Your task to perform on an android device: set the timer Image 0: 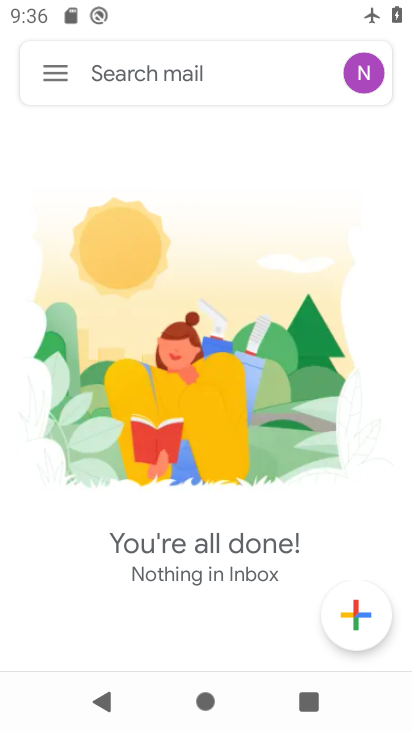
Step 0: press home button
Your task to perform on an android device: set the timer Image 1: 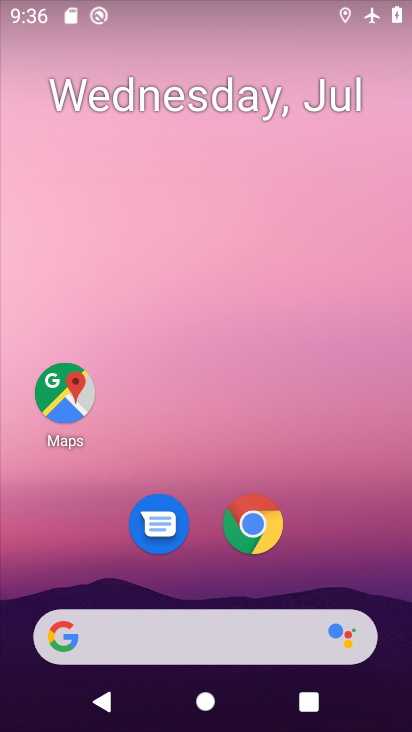
Step 1: drag from (237, 446) to (259, 24)
Your task to perform on an android device: set the timer Image 2: 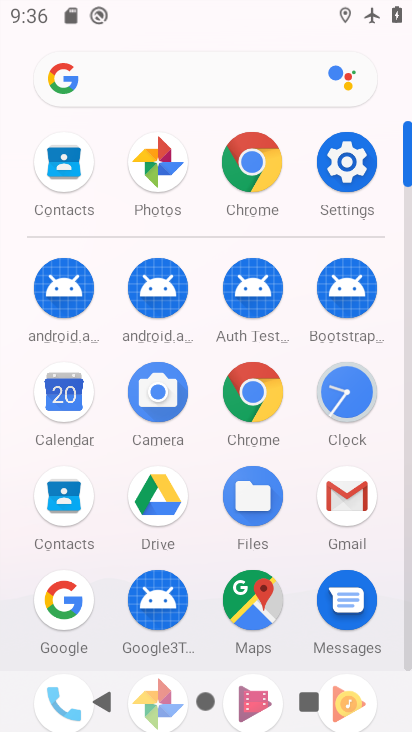
Step 2: click (340, 392)
Your task to perform on an android device: set the timer Image 3: 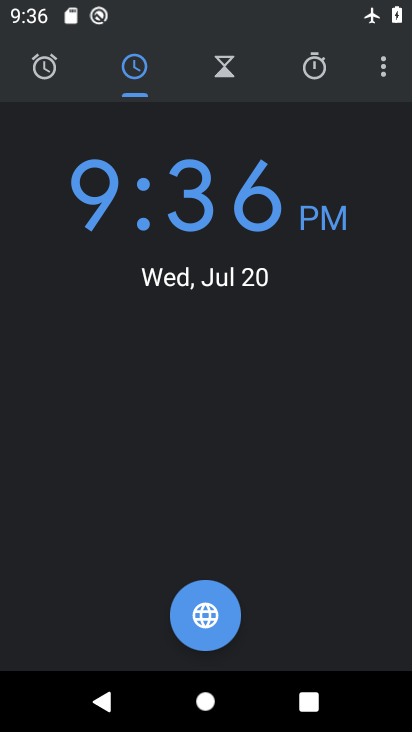
Step 3: click (225, 68)
Your task to perform on an android device: set the timer Image 4: 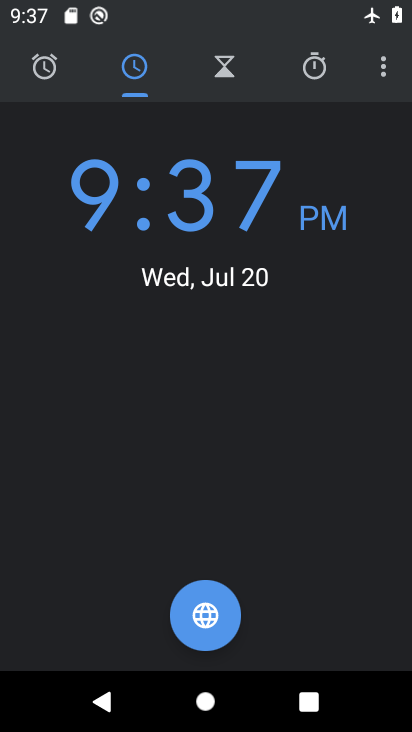
Step 4: click (232, 67)
Your task to perform on an android device: set the timer Image 5: 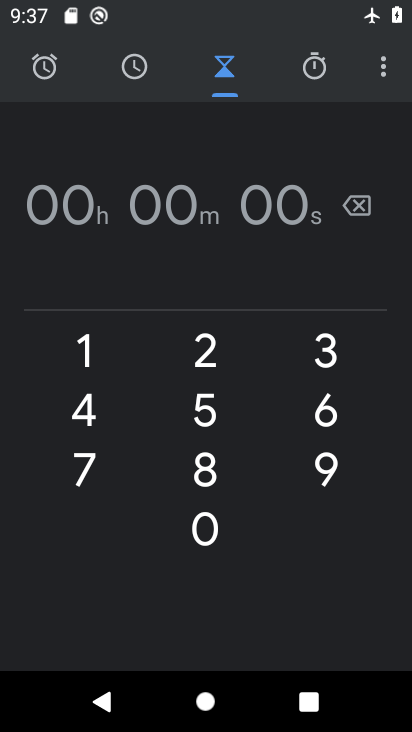
Step 5: task complete